Your task to perform on an android device: change the clock display to show seconds Image 0: 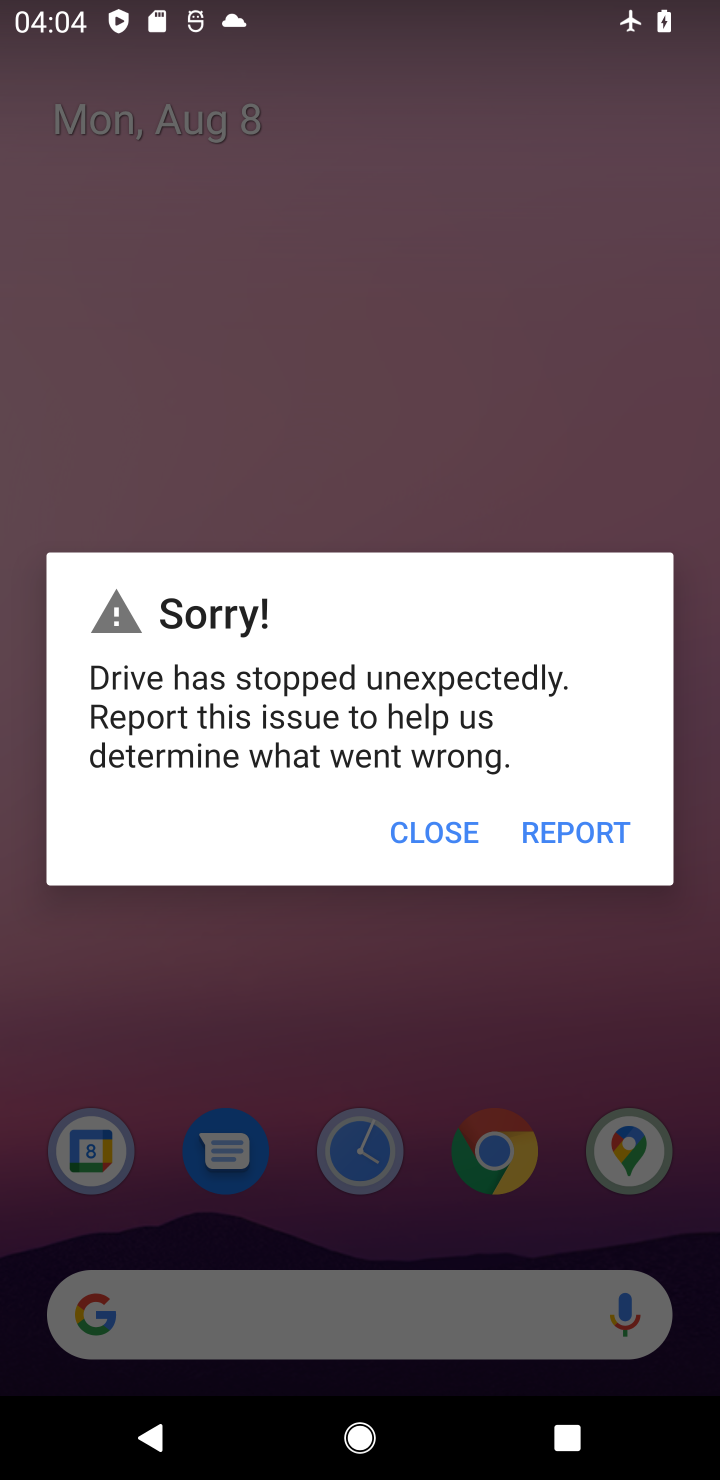
Step 0: click (409, 818)
Your task to perform on an android device: change the clock display to show seconds Image 1: 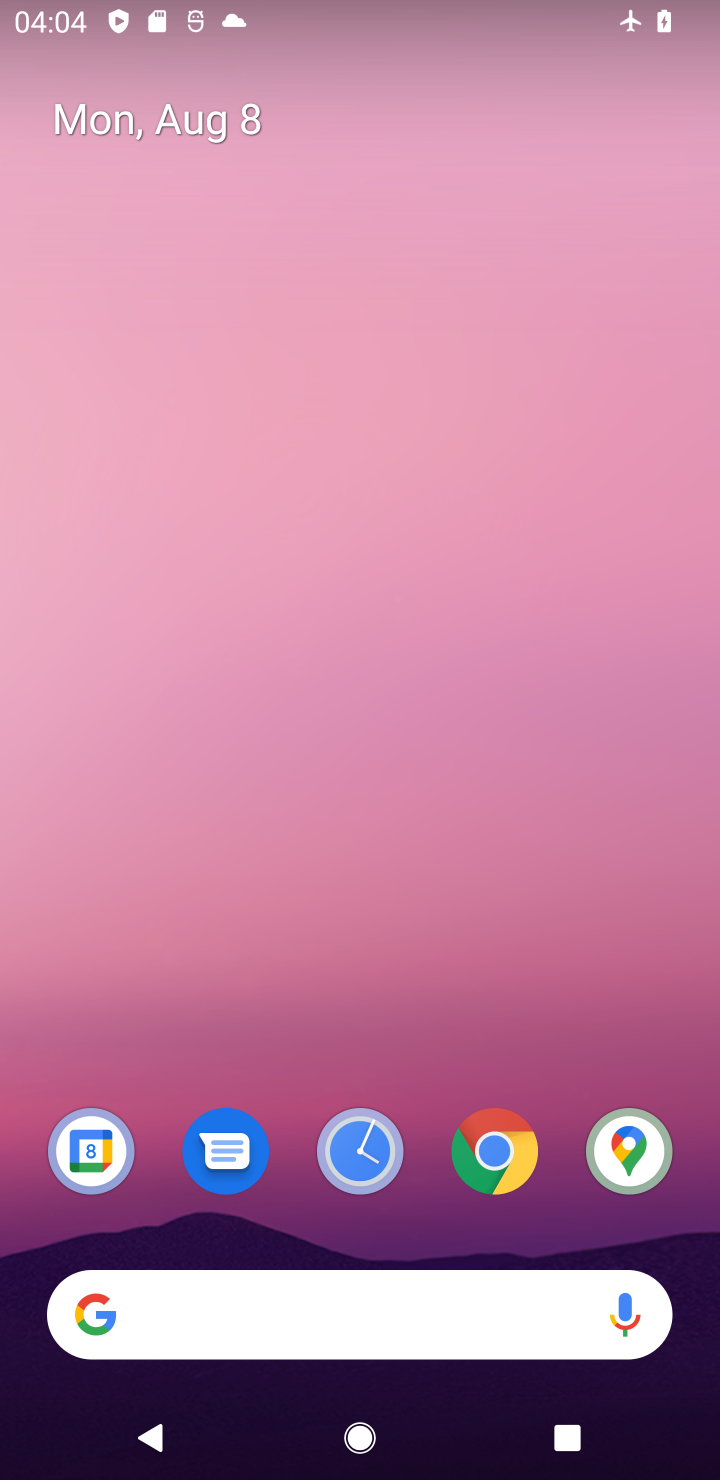
Step 1: click (369, 1151)
Your task to perform on an android device: change the clock display to show seconds Image 2: 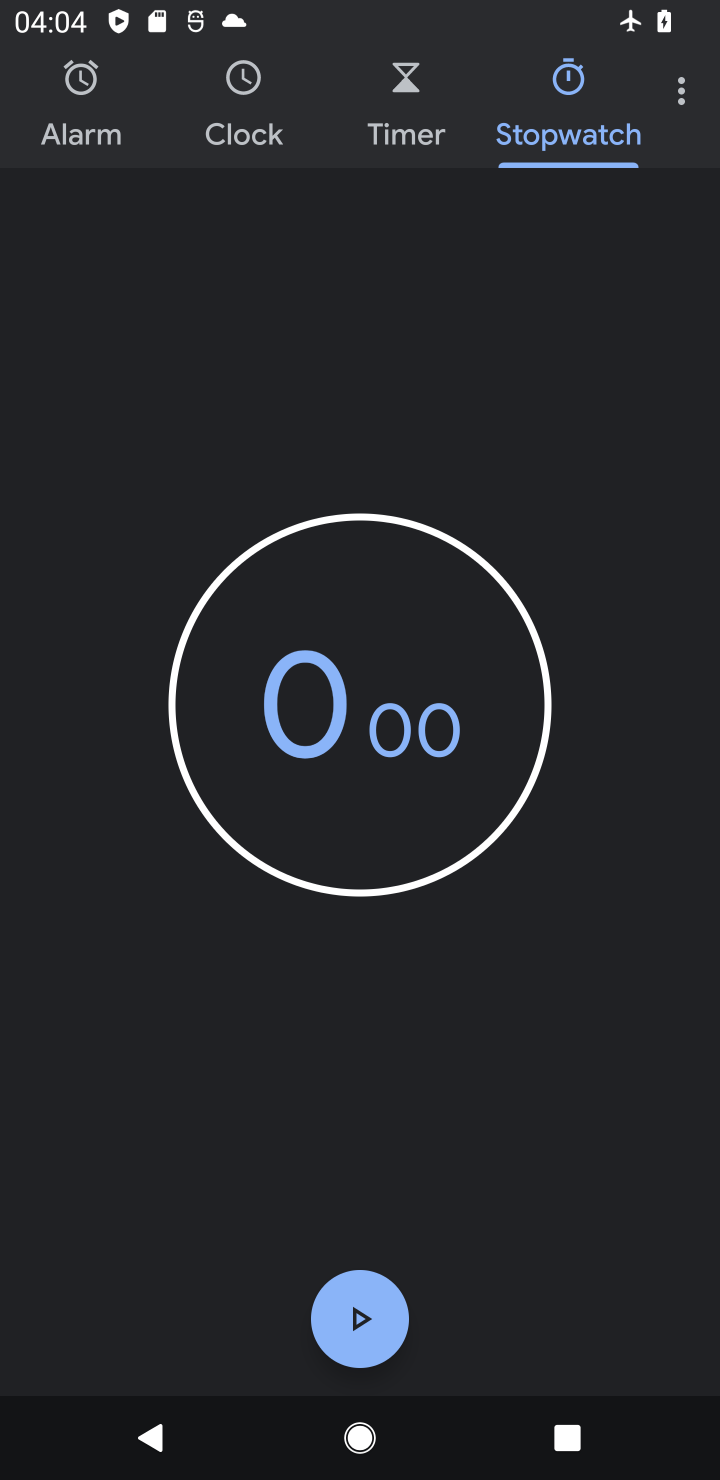
Step 2: click (674, 101)
Your task to perform on an android device: change the clock display to show seconds Image 3: 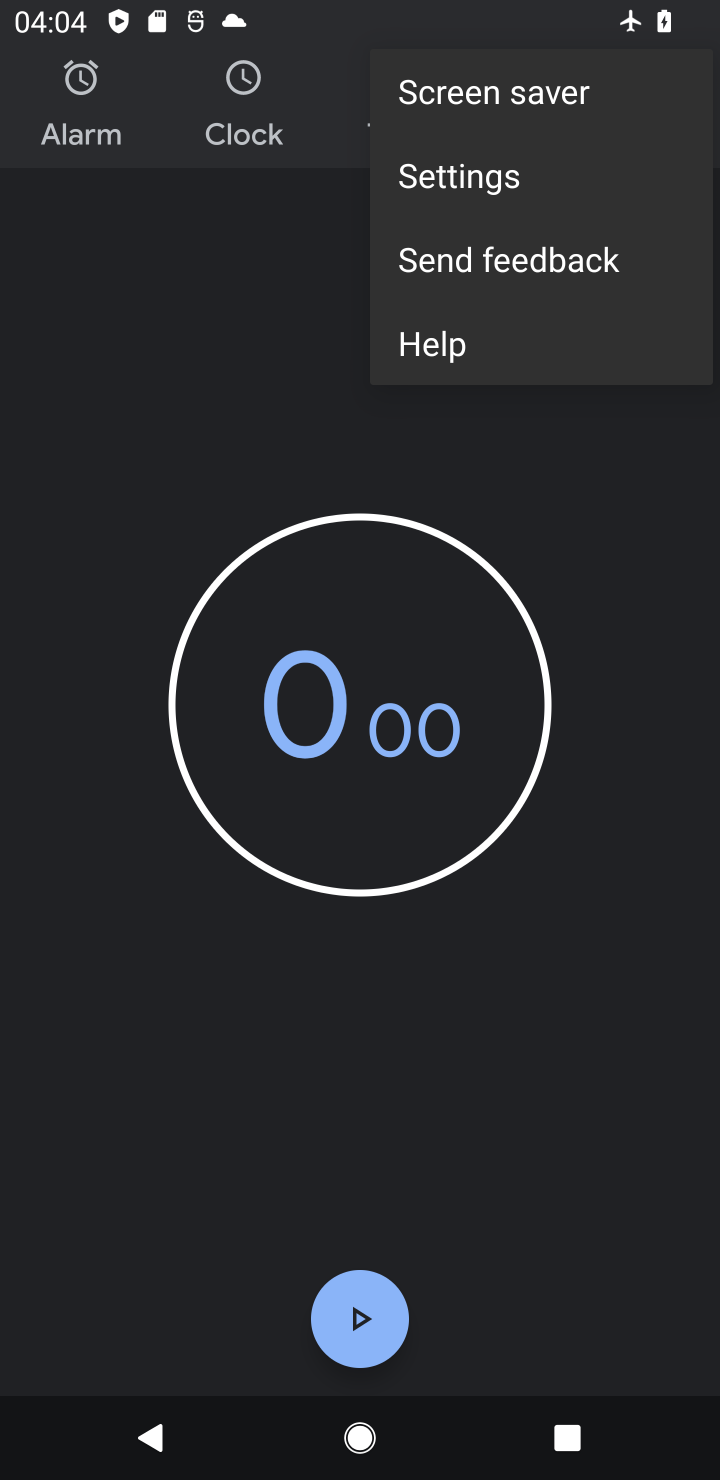
Step 3: click (542, 192)
Your task to perform on an android device: change the clock display to show seconds Image 4: 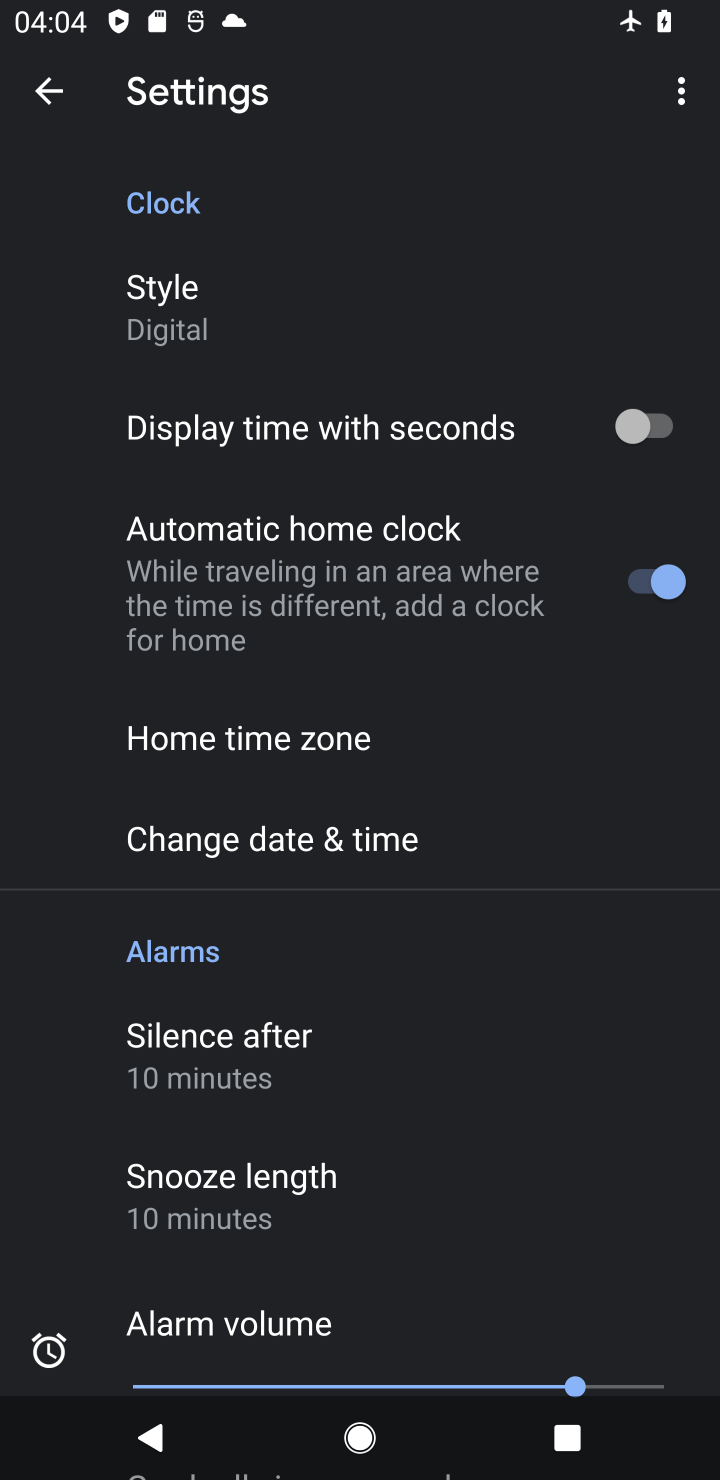
Step 4: click (654, 427)
Your task to perform on an android device: change the clock display to show seconds Image 5: 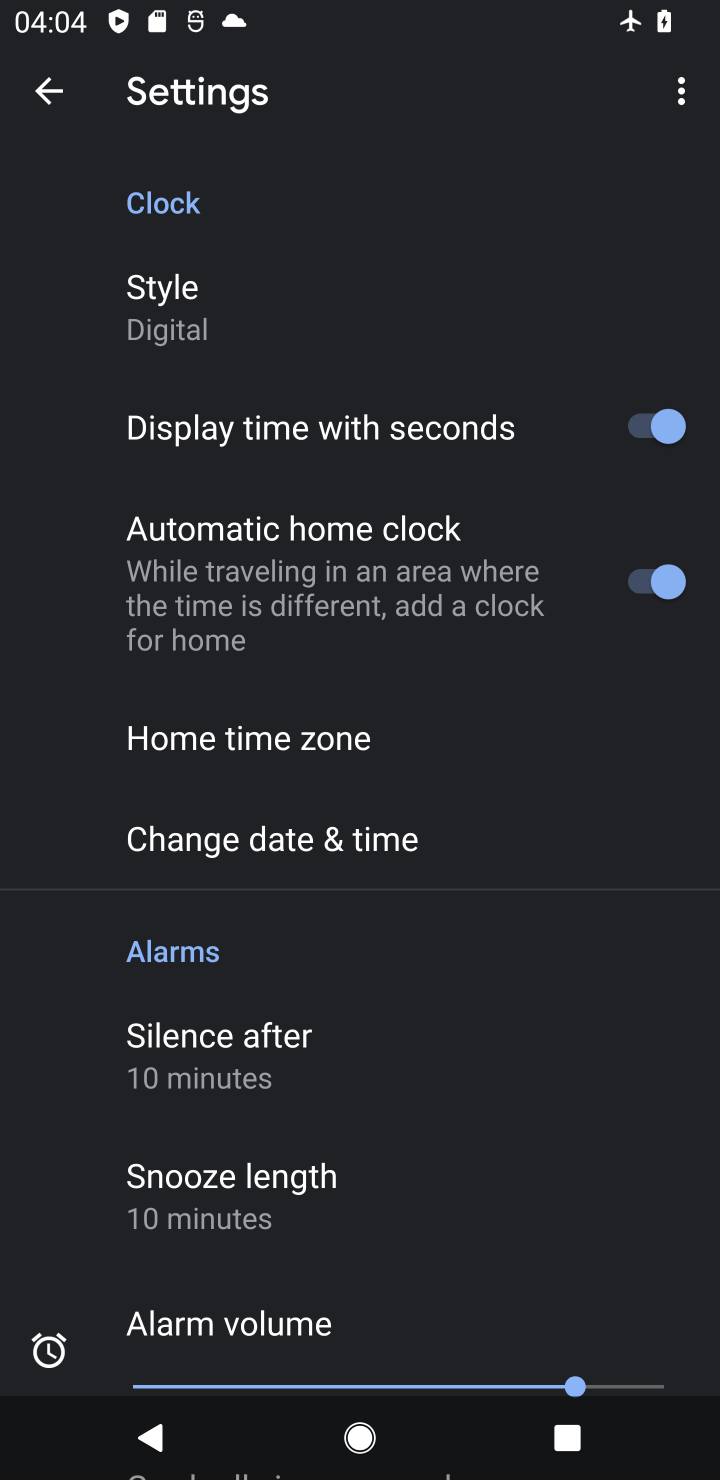
Step 5: task complete